Your task to perform on an android device: Open Google Image 0: 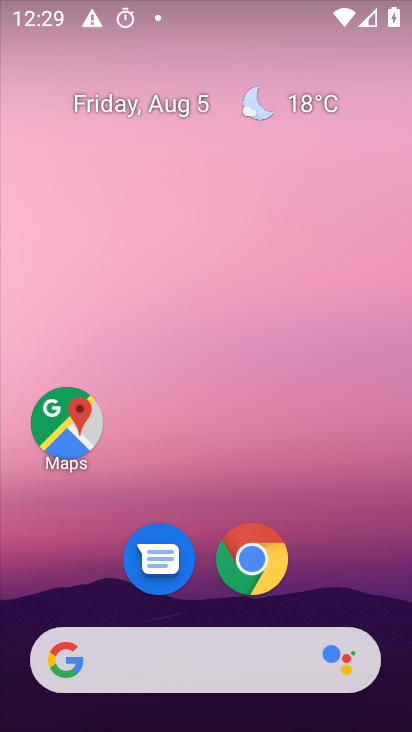
Step 0: click (153, 664)
Your task to perform on an android device: Open Google Image 1: 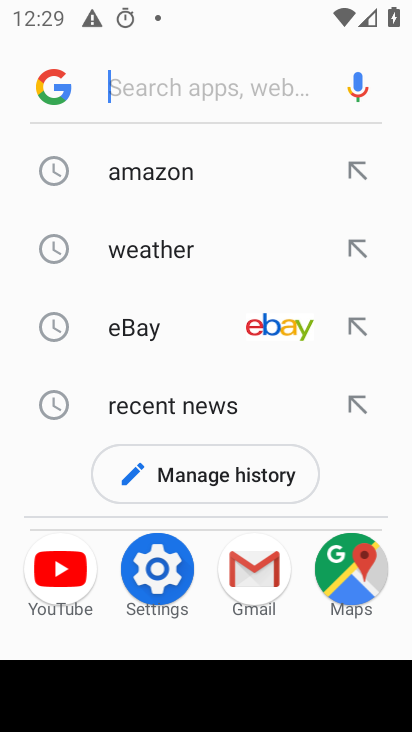
Step 1: task complete